Your task to perform on an android device: change the clock display to show seconds Image 0: 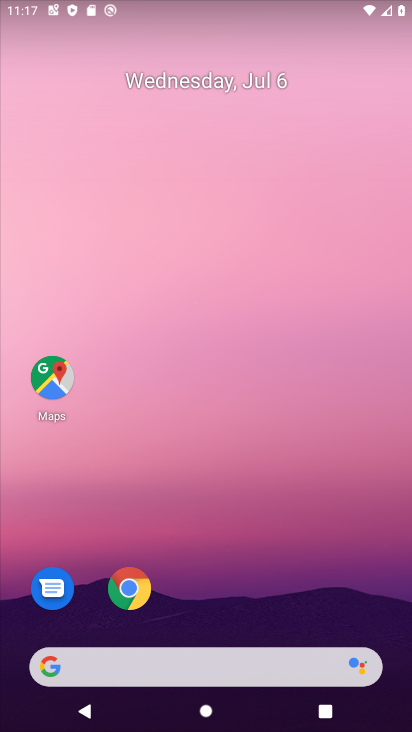
Step 0: drag from (278, 631) to (299, 319)
Your task to perform on an android device: change the clock display to show seconds Image 1: 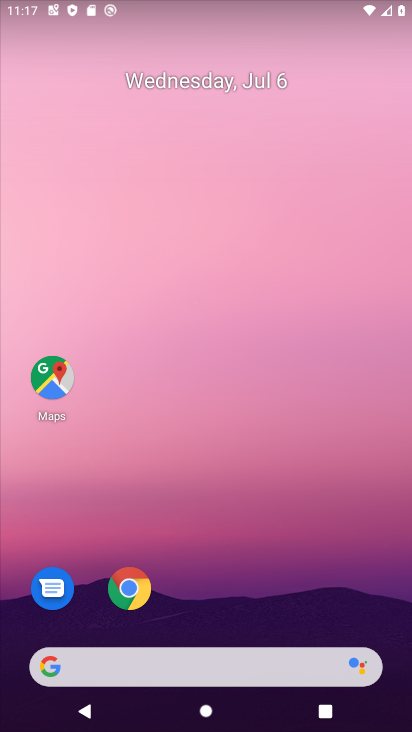
Step 1: drag from (236, 601) to (330, 176)
Your task to perform on an android device: change the clock display to show seconds Image 2: 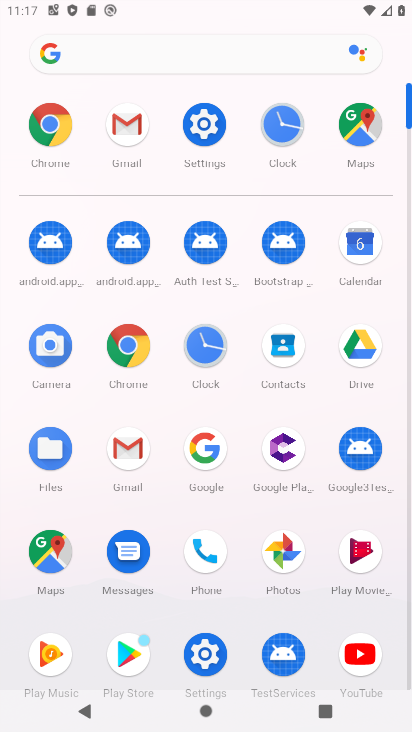
Step 2: click (209, 353)
Your task to perform on an android device: change the clock display to show seconds Image 3: 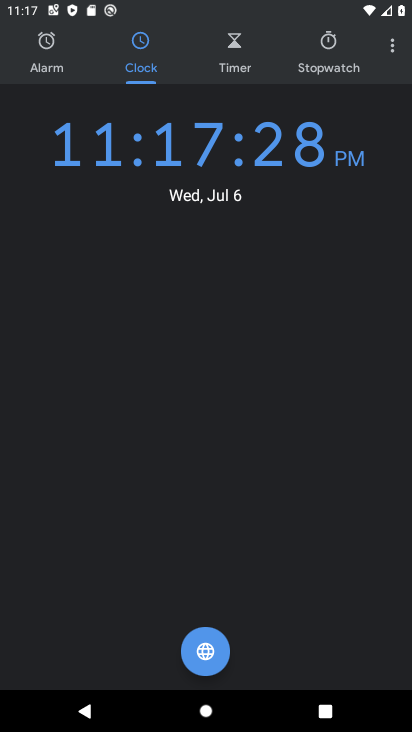
Step 3: click (389, 43)
Your task to perform on an android device: change the clock display to show seconds Image 4: 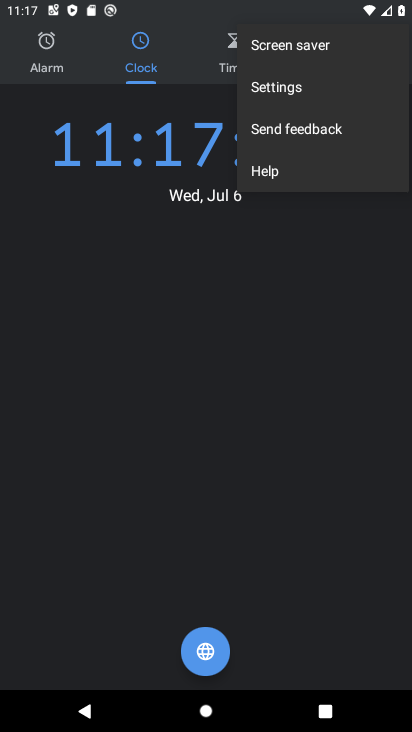
Step 4: click (277, 84)
Your task to perform on an android device: change the clock display to show seconds Image 5: 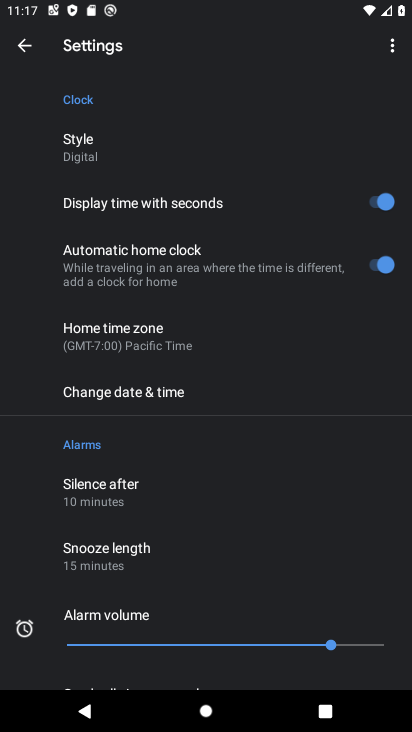
Step 5: task complete